Your task to perform on an android device: Go to Yahoo.com Image 0: 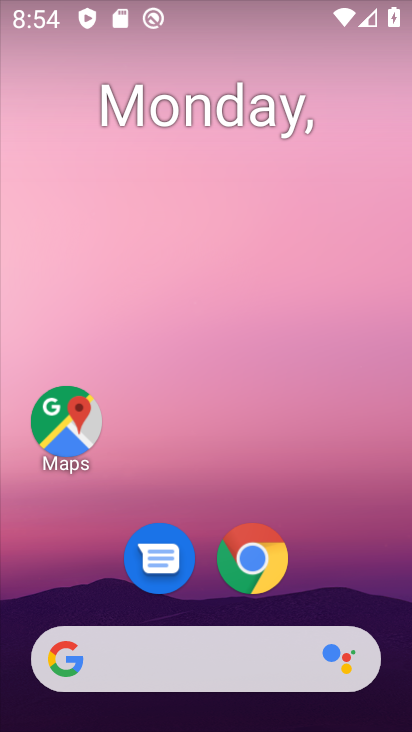
Step 0: click (254, 569)
Your task to perform on an android device: Go to Yahoo.com Image 1: 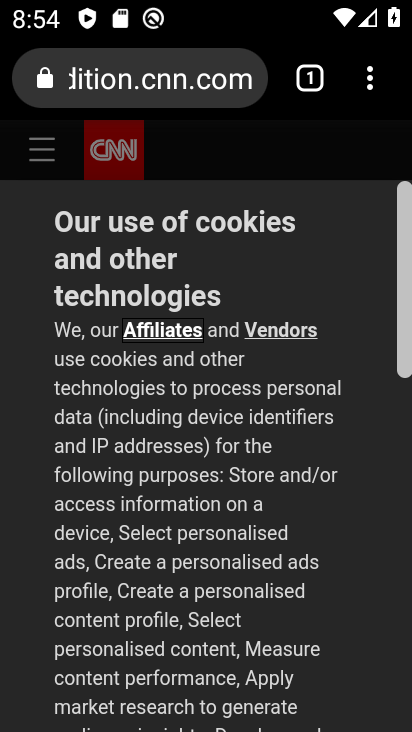
Step 1: click (170, 91)
Your task to perform on an android device: Go to Yahoo.com Image 2: 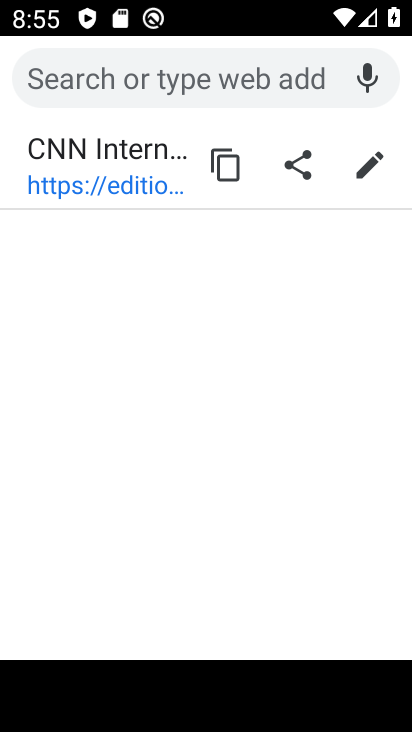
Step 2: type "Yahoo.com"
Your task to perform on an android device: Go to Yahoo.com Image 3: 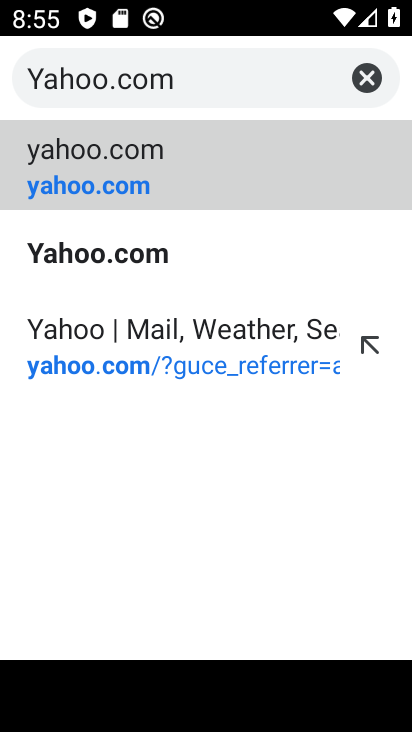
Step 3: click (107, 180)
Your task to perform on an android device: Go to Yahoo.com Image 4: 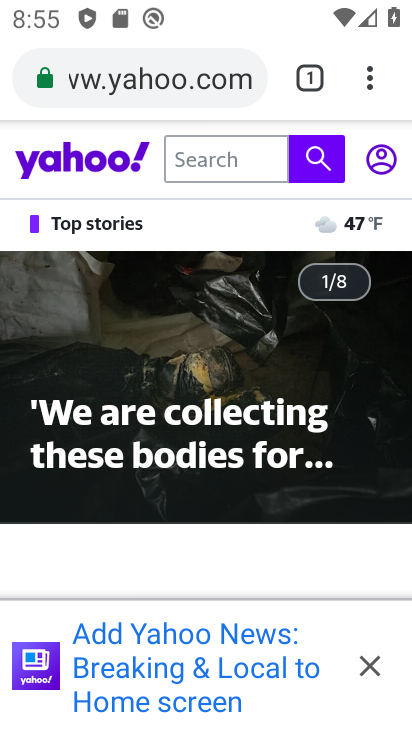
Step 4: task complete